Your task to perform on an android device: allow notifications from all sites in the chrome app Image 0: 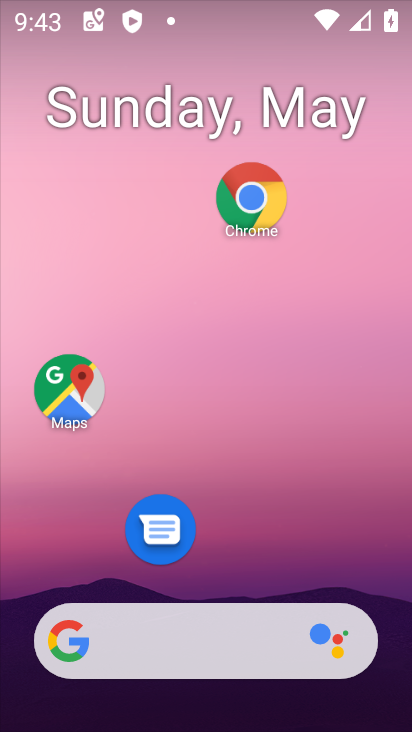
Step 0: click (255, 201)
Your task to perform on an android device: allow notifications from all sites in the chrome app Image 1: 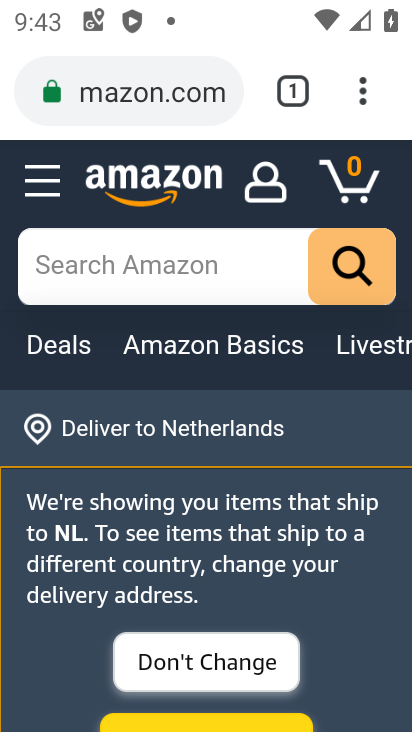
Step 1: click (360, 98)
Your task to perform on an android device: allow notifications from all sites in the chrome app Image 2: 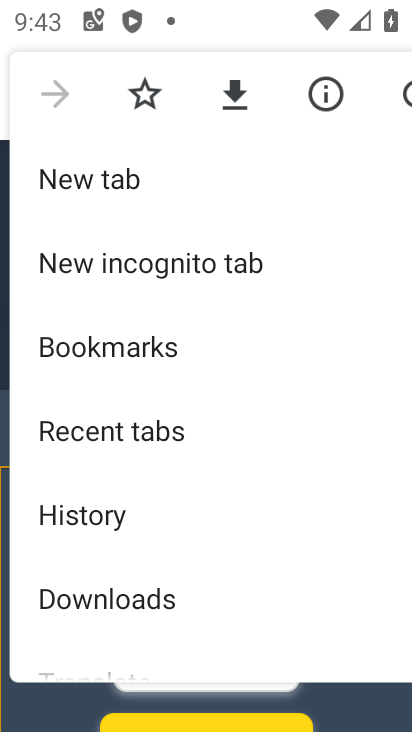
Step 2: drag from (68, 573) to (105, 189)
Your task to perform on an android device: allow notifications from all sites in the chrome app Image 3: 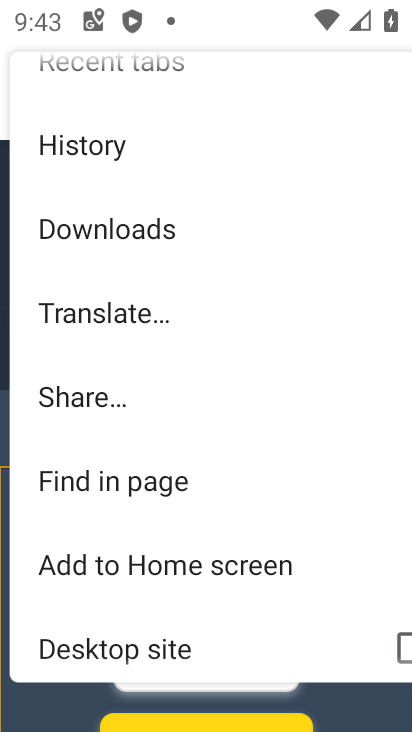
Step 3: drag from (78, 634) to (135, 380)
Your task to perform on an android device: allow notifications from all sites in the chrome app Image 4: 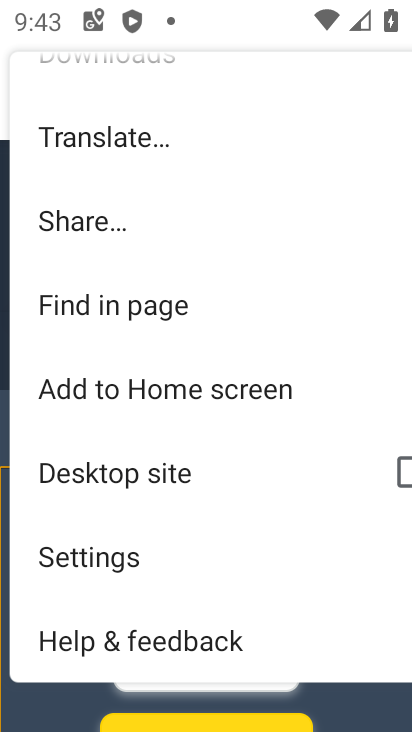
Step 4: click (130, 570)
Your task to perform on an android device: allow notifications from all sites in the chrome app Image 5: 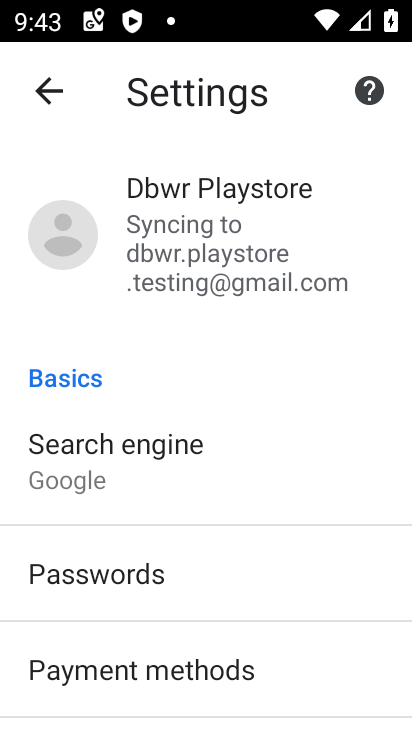
Step 5: drag from (164, 666) to (253, 298)
Your task to perform on an android device: allow notifications from all sites in the chrome app Image 6: 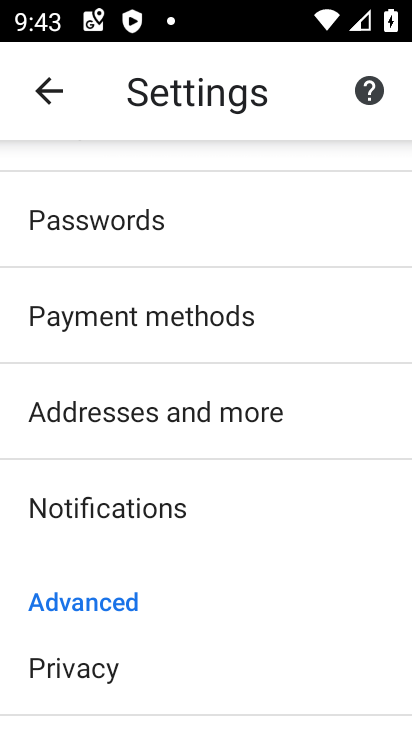
Step 6: click (147, 505)
Your task to perform on an android device: allow notifications from all sites in the chrome app Image 7: 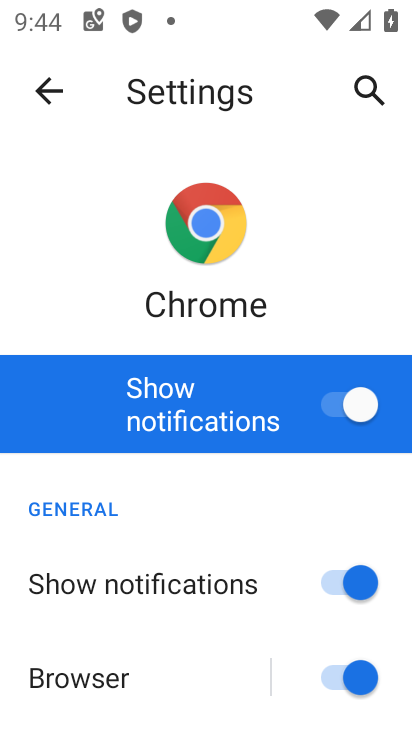
Step 7: task complete